Your task to perform on an android device: Clear all items from cart on bestbuy. Add "jbl flip 4" to the cart on bestbuy Image 0: 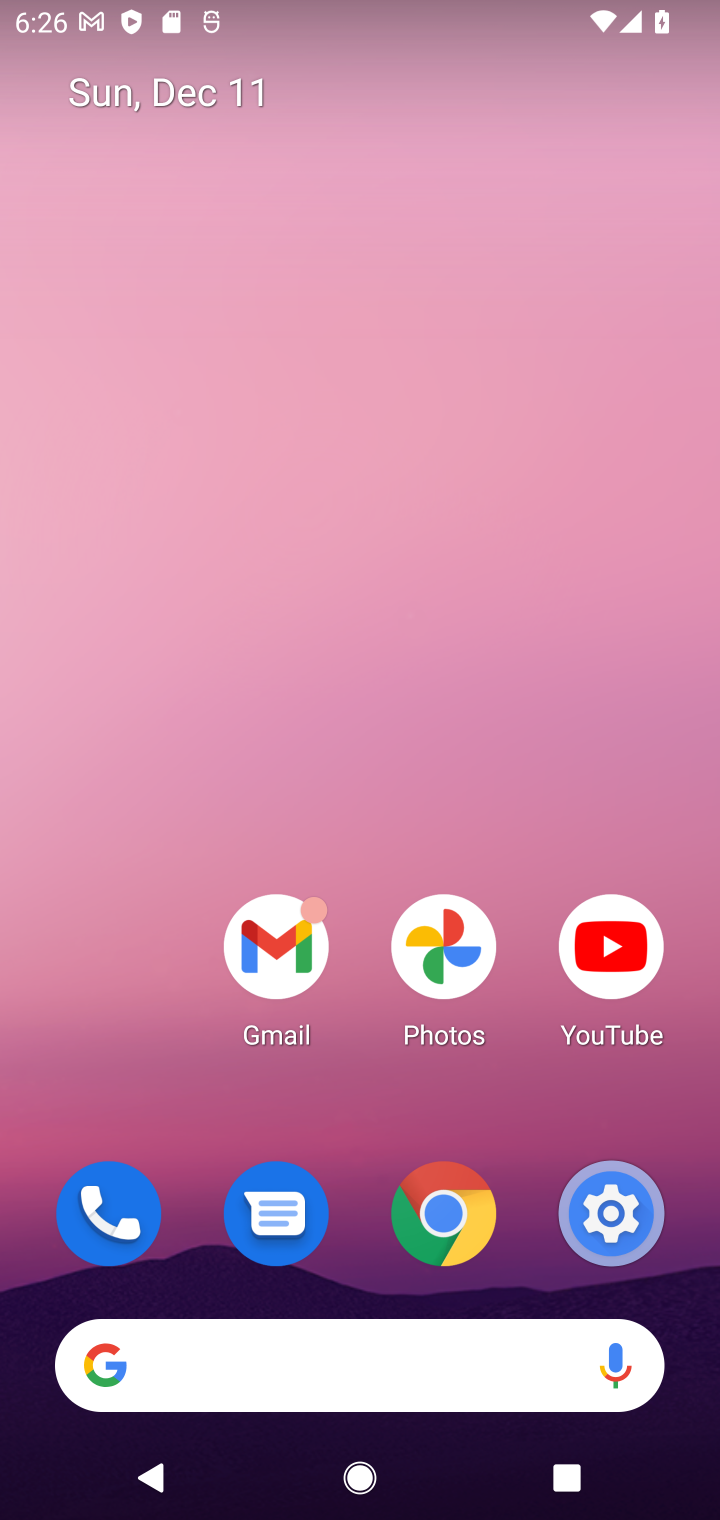
Step 0: click (486, 1348)
Your task to perform on an android device: Clear all items from cart on bestbuy. Add "jbl flip 4" to the cart on bestbuy Image 1: 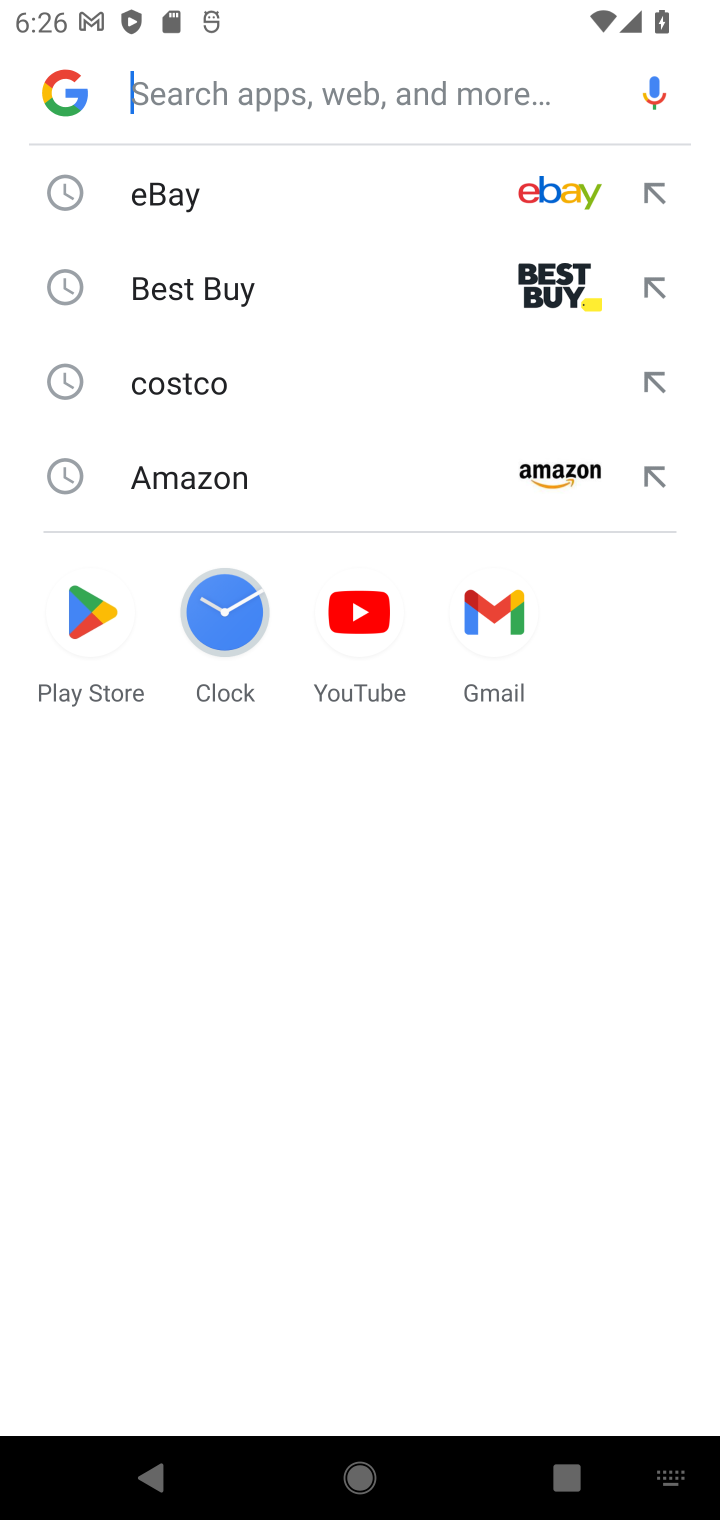
Step 1: click (218, 285)
Your task to perform on an android device: Clear all items from cart on bestbuy. Add "jbl flip 4" to the cart on bestbuy Image 2: 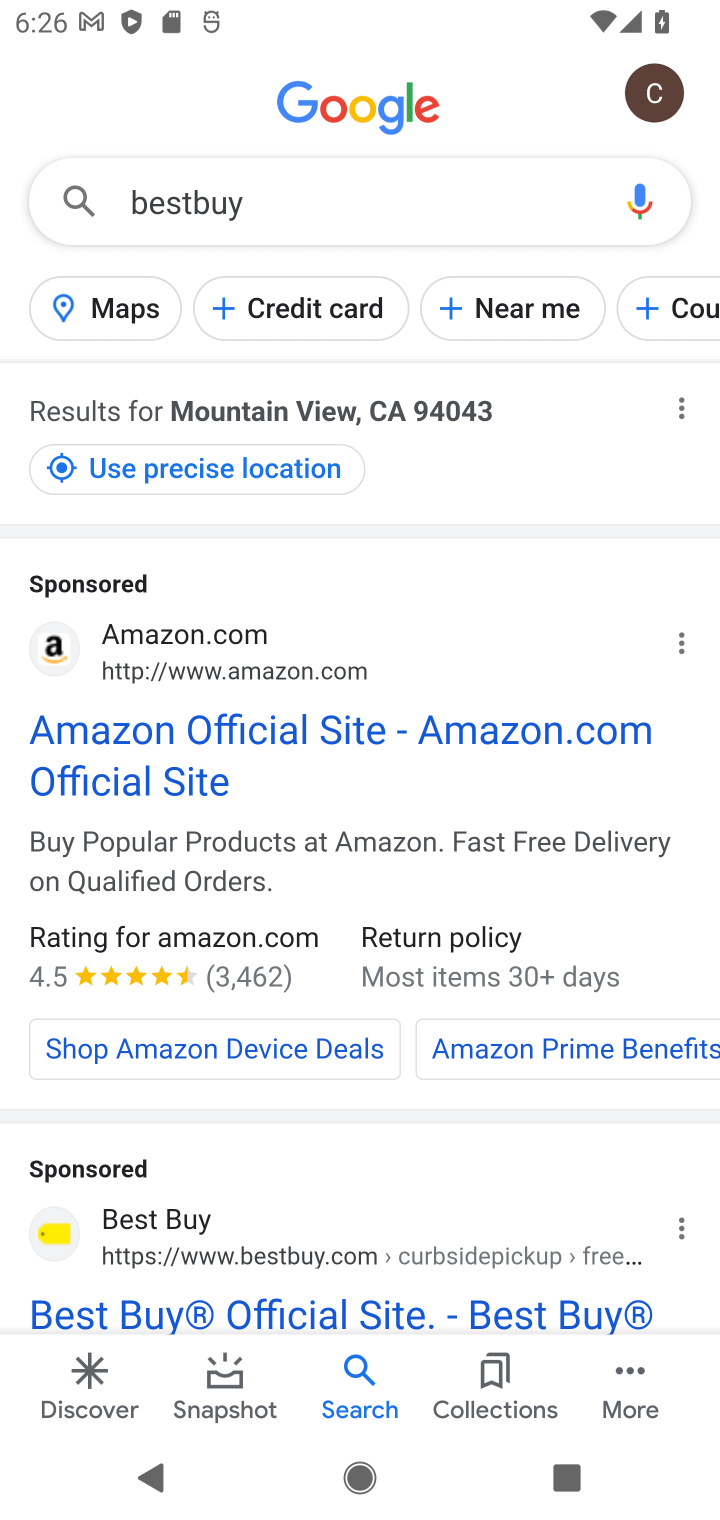
Step 2: click (188, 723)
Your task to perform on an android device: Clear all items from cart on bestbuy. Add "jbl flip 4" to the cart on bestbuy Image 3: 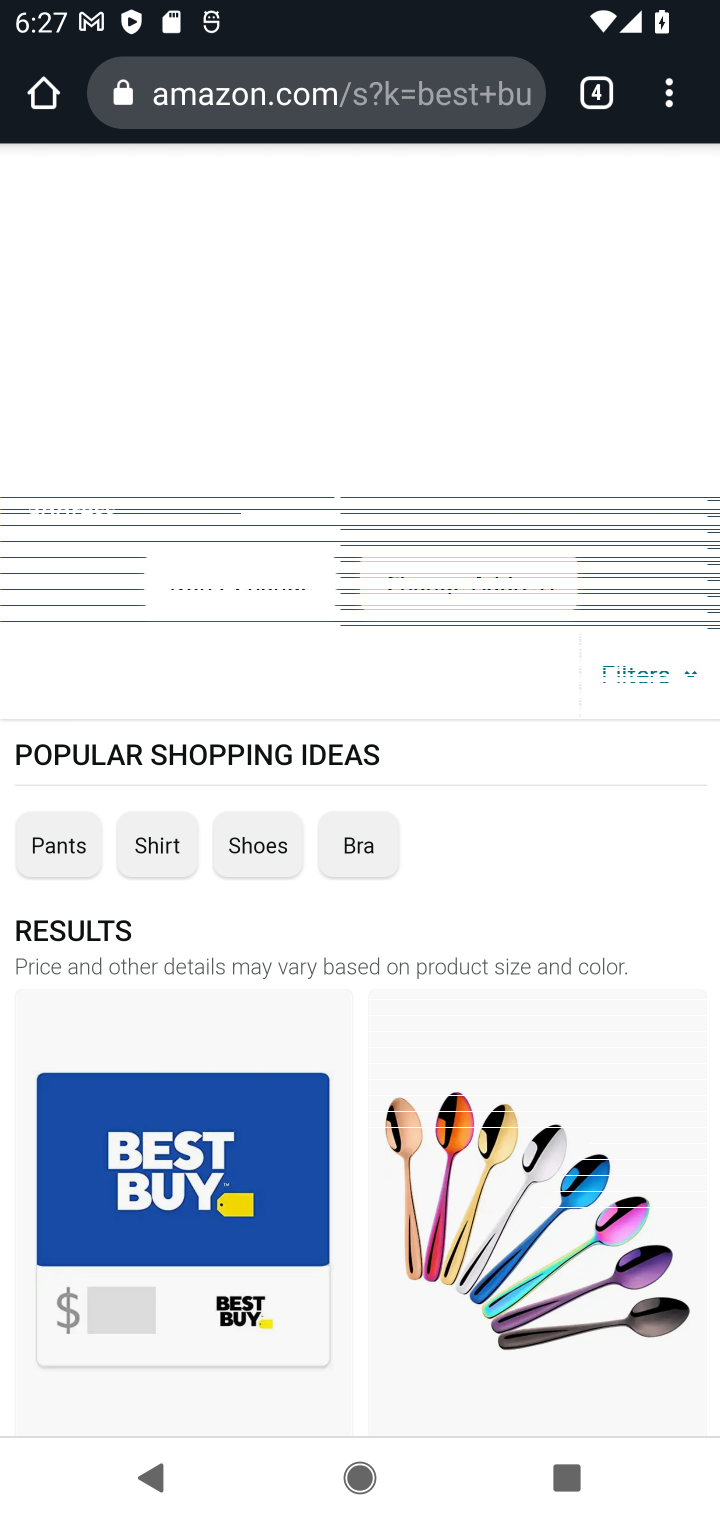
Step 3: click (327, 280)
Your task to perform on an android device: Clear all items from cart on bestbuy. Add "jbl flip 4" to the cart on bestbuy Image 4: 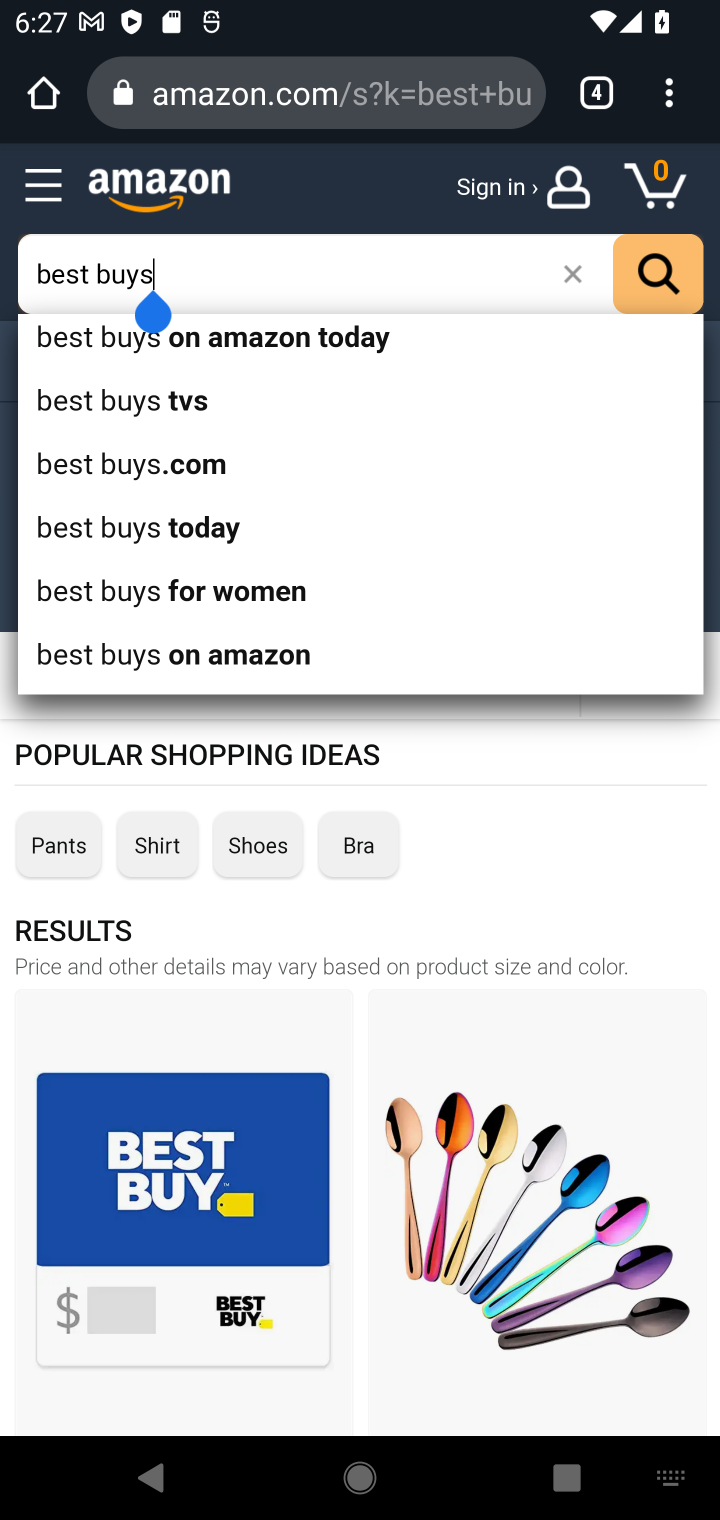
Step 4: click (559, 277)
Your task to perform on an android device: Clear all items from cart on bestbuy. Add "jbl flip 4" to the cart on bestbuy Image 5: 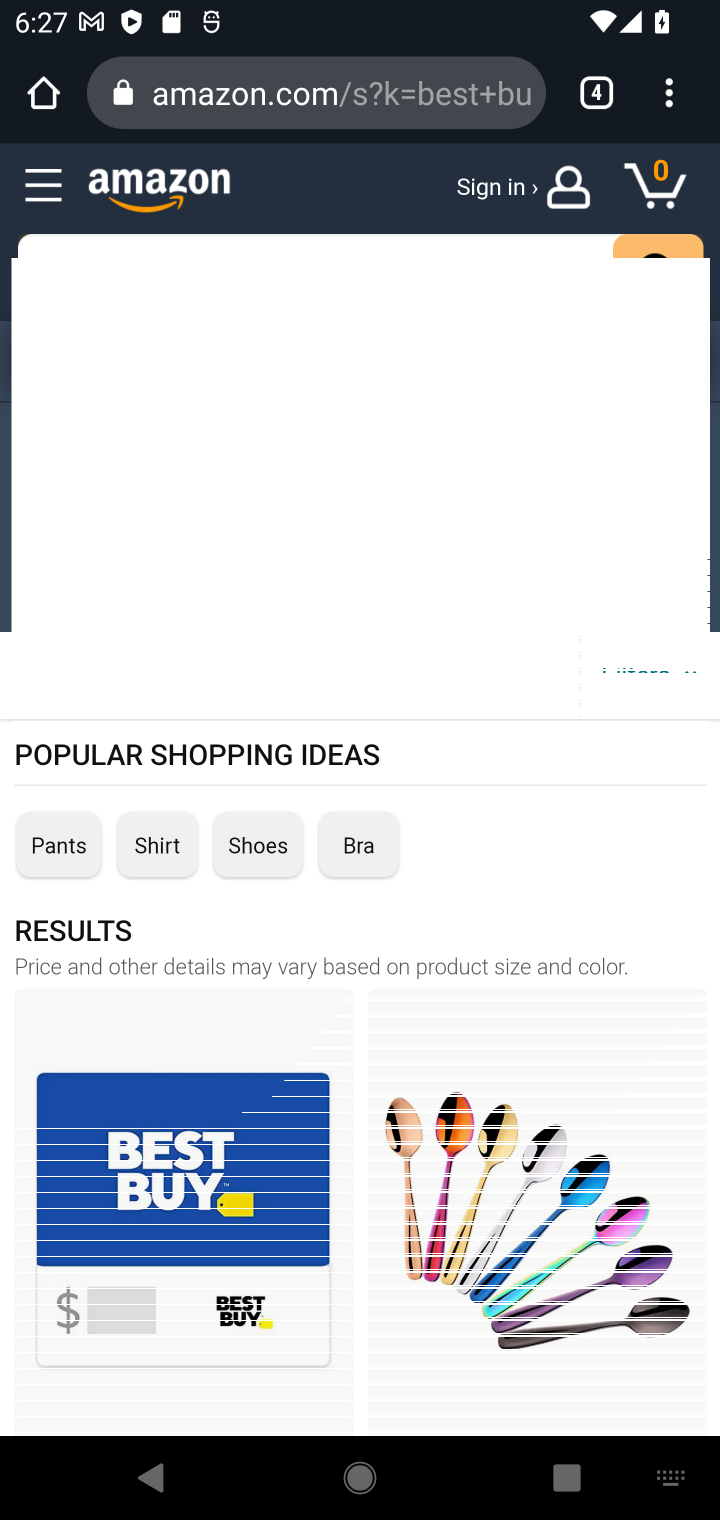
Step 5: type "jbl flip 4"
Your task to perform on an android device: Clear all items from cart on bestbuy. Add "jbl flip 4" to the cart on bestbuy Image 6: 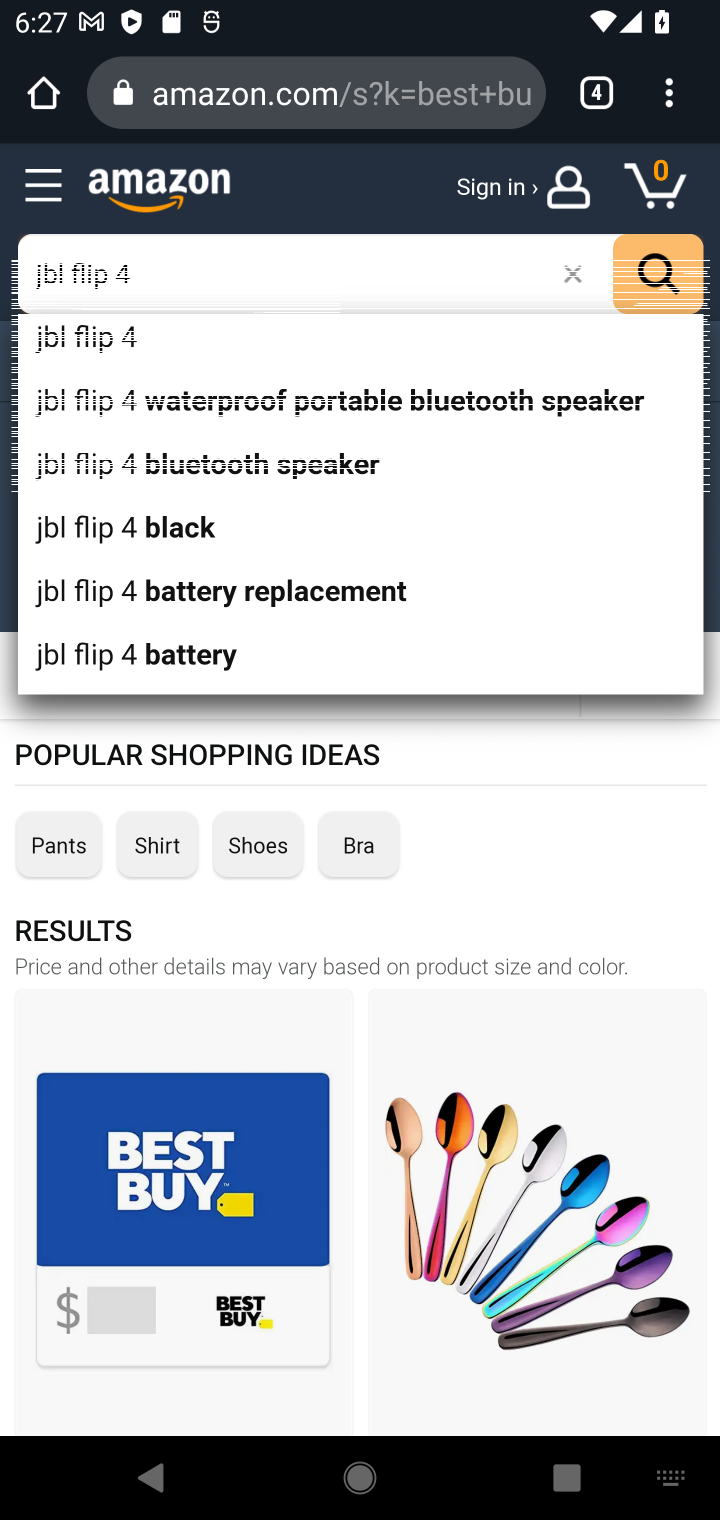
Step 6: click (476, 348)
Your task to perform on an android device: Clear all items from cart on bestbuy. Add "jbl flip 4" to the cart on bestbuy Image 7: 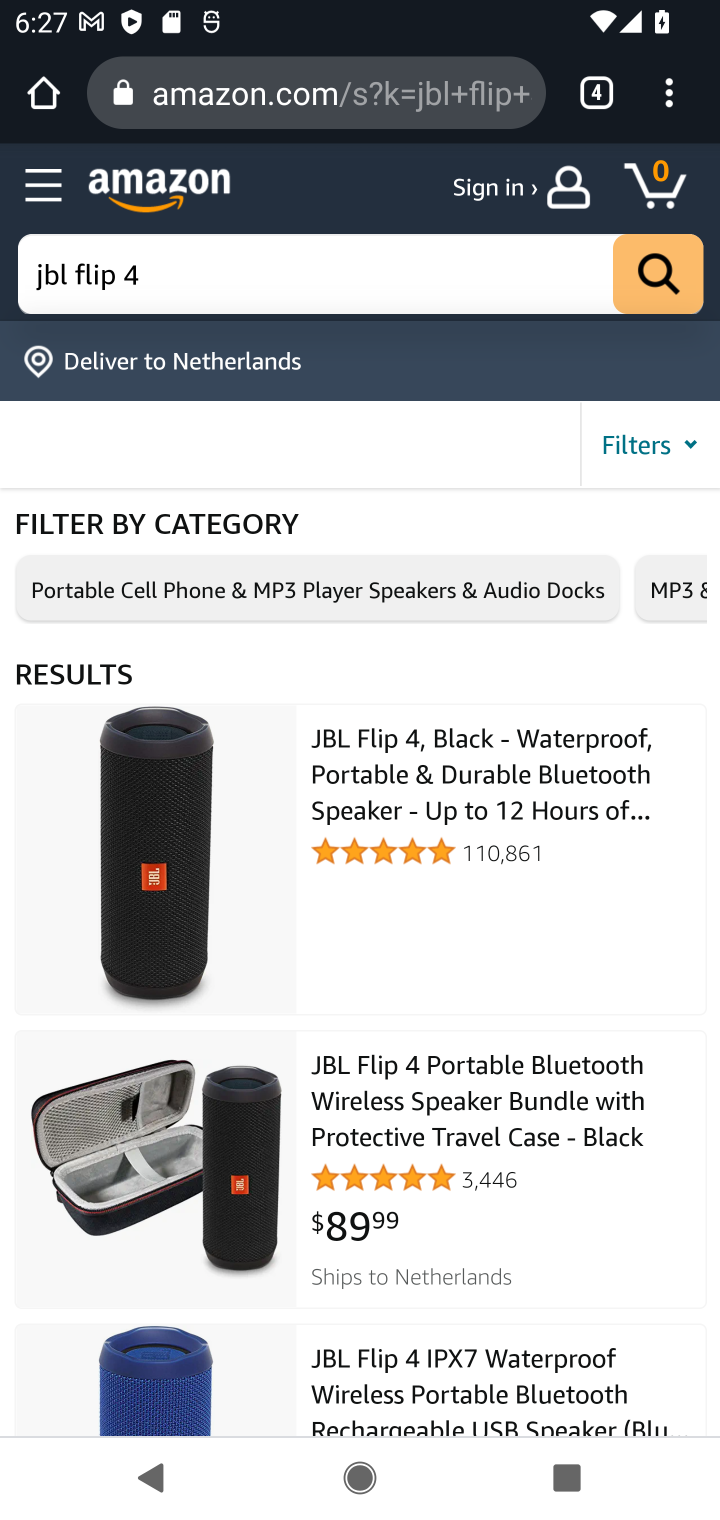
Step 7: click (508, 784)
Your task to perform on an android device: Clear all items from cart on bestbuy. Add "jbl flip 4" to the cart on bestbuy Image 8: 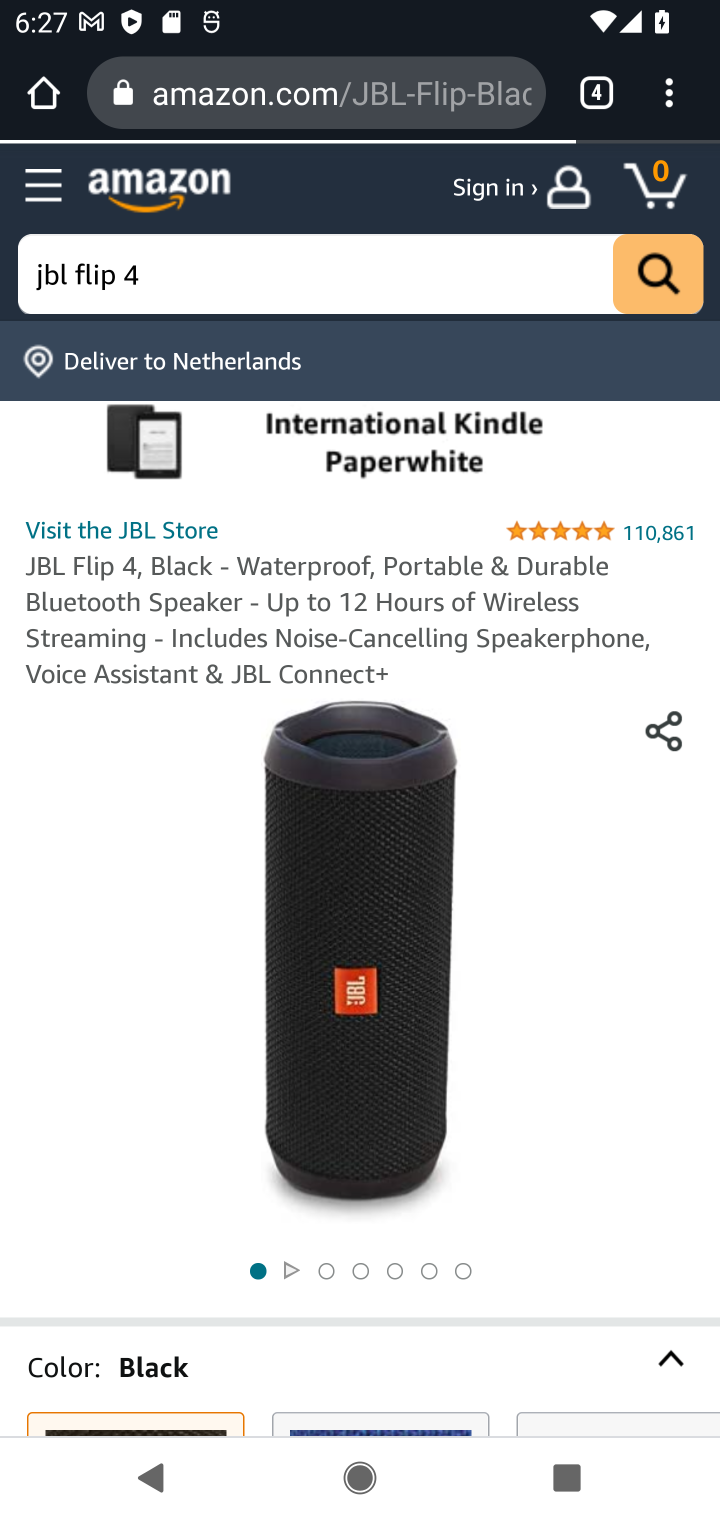
Step 8: drag from (506, 1076) to (405, 131)
Your task to perform on an android device: Clear all items from cart on bestbuy. Add "jbl flip 4" to the cart on bestbuy Image 9: 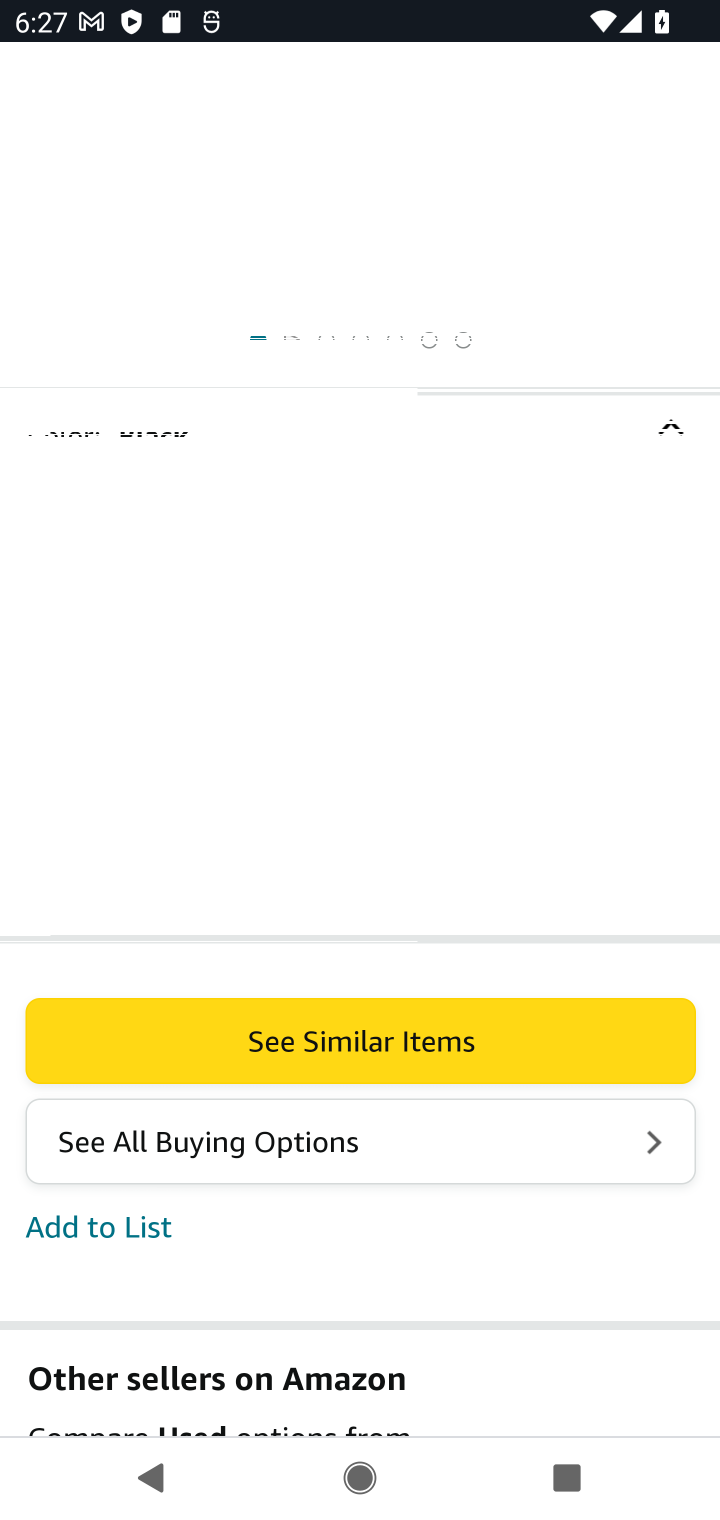
Step 9: click (510, 1016)
Your task to perform on an android device: Clear all items from cart on bestbuy. Add "jbl flip 4" to the cart on bestbuy Image 10: 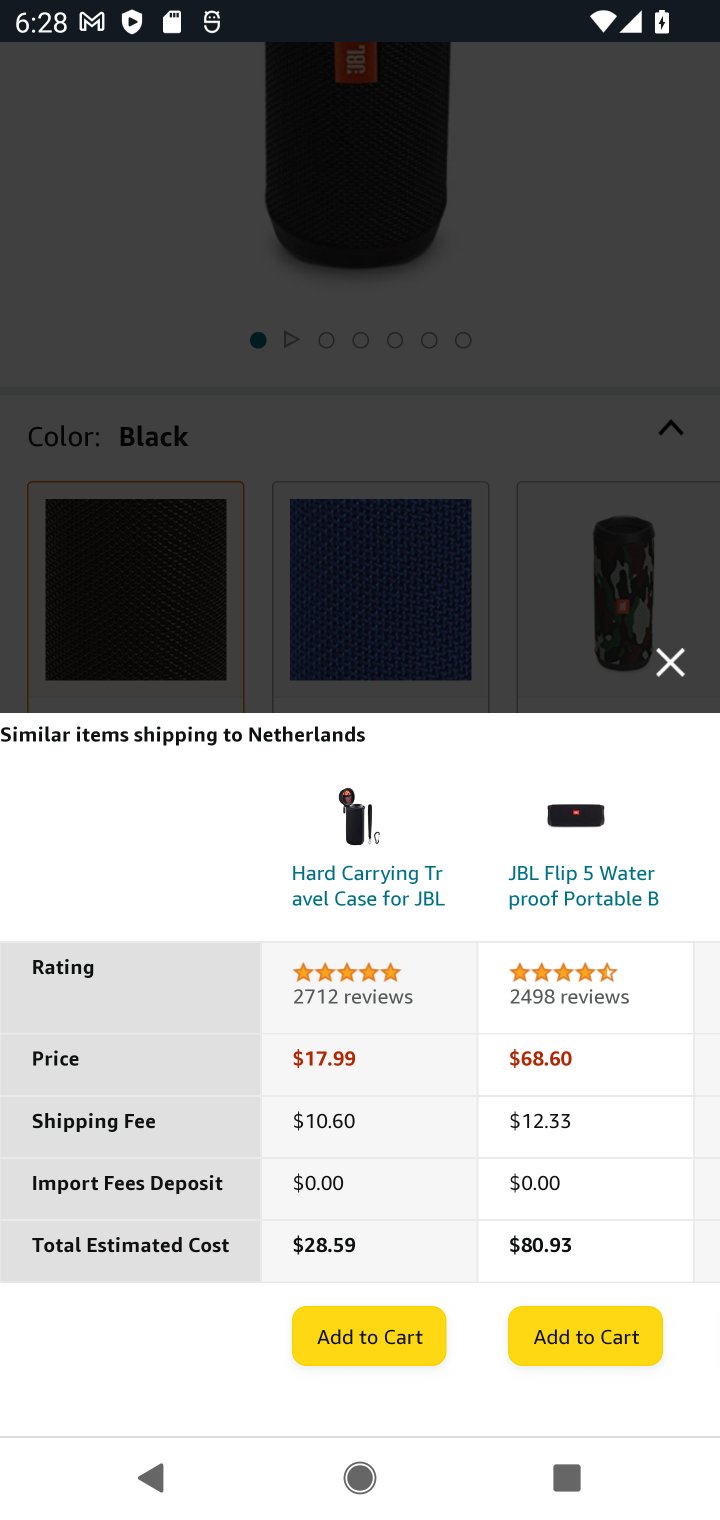
Step 10: click (382, 1355)
Your task to perform on an android device: Clear all items from cart on bestbuy. Add "jbl flip 4" to the cart on bestbuy Image 11: 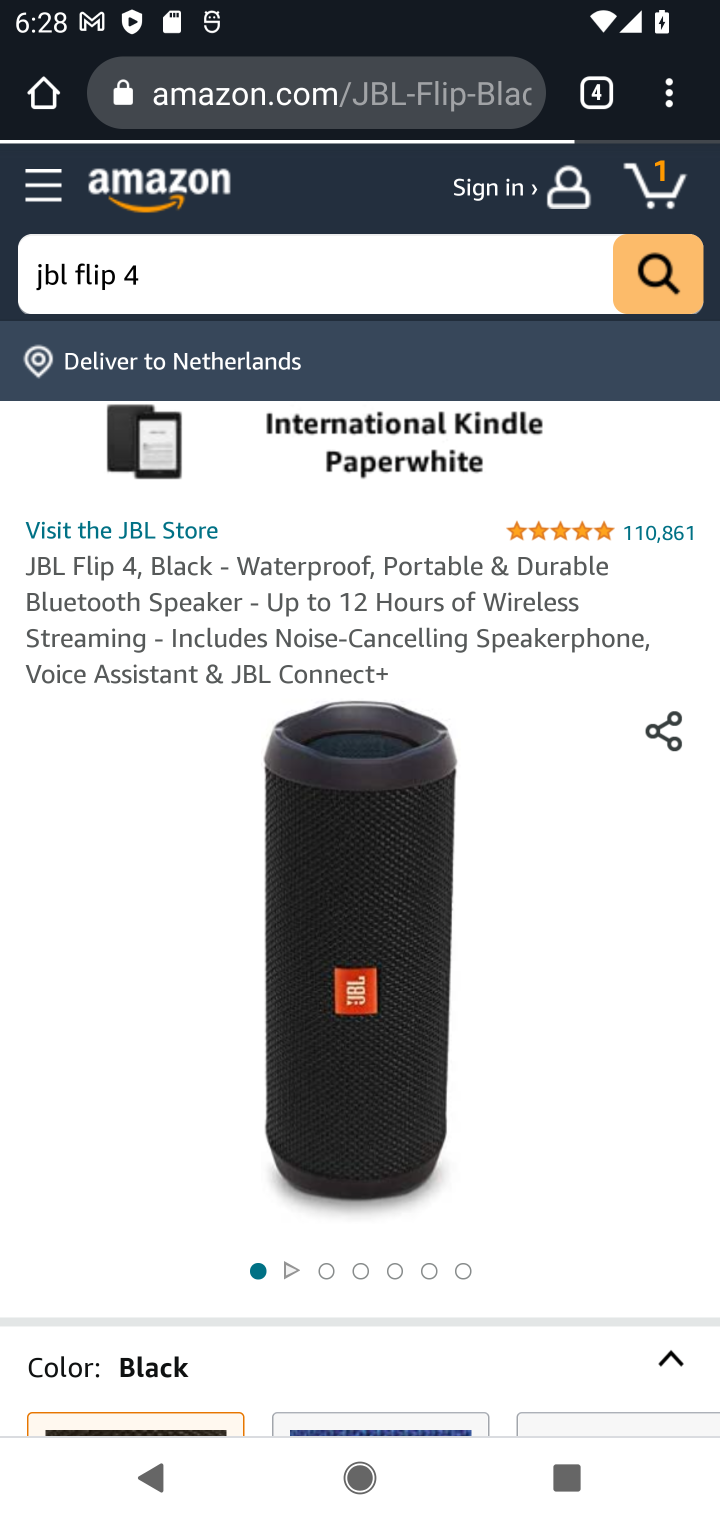
Step 11: task complete